Your task to perform on an android device: check battery use Image 0: 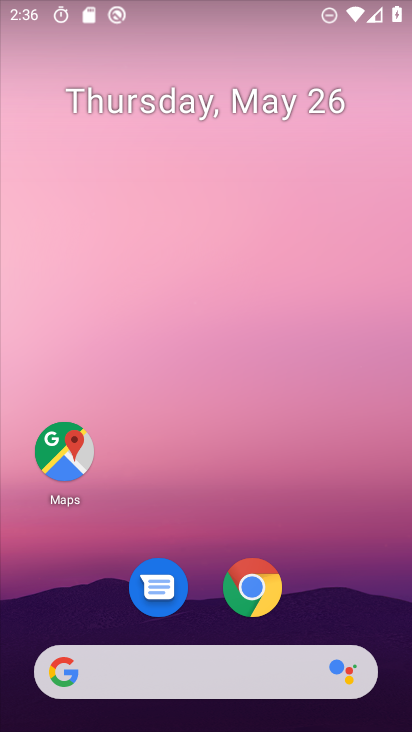
Step 0: drag from (334, 473) to (283, 147)
Your task to perform on an android device: check battery use Image 1: 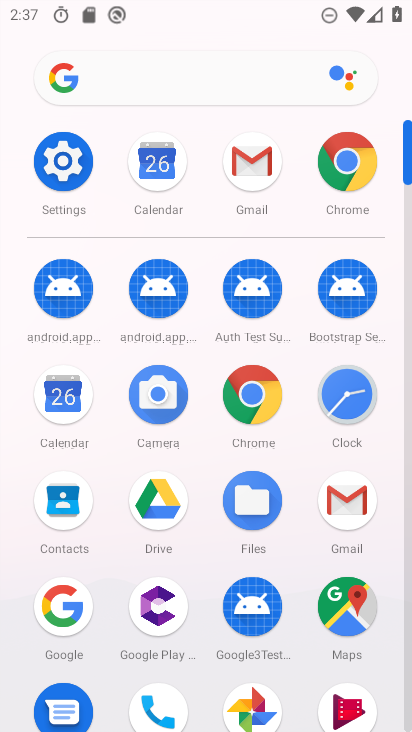
Step 1: click (52, 184)
Your task to perform on an android device: check battery use Image 2: 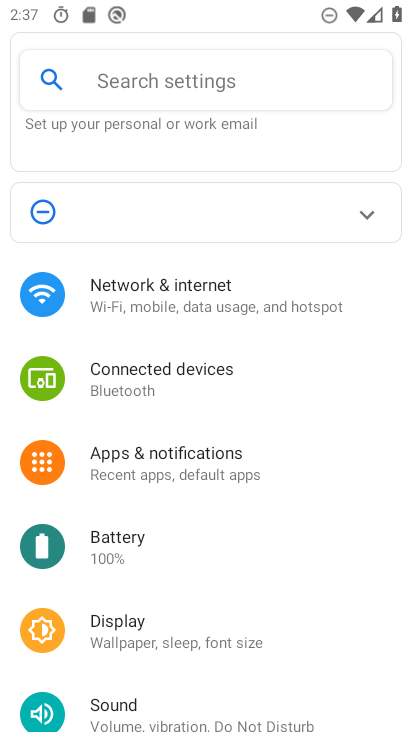
Step 2: drag from (247, 615) to (257, 414)
Your task to perform on an android device: check battery use Image 3: 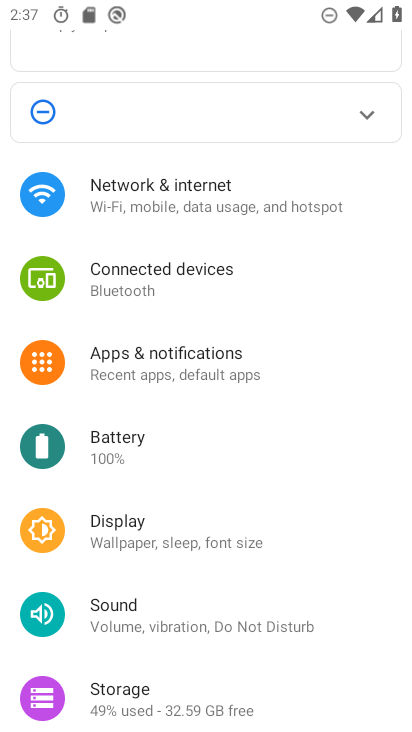
Step 3: click (126, 438)
Your task to perform on an android device: check battery use Image 4: 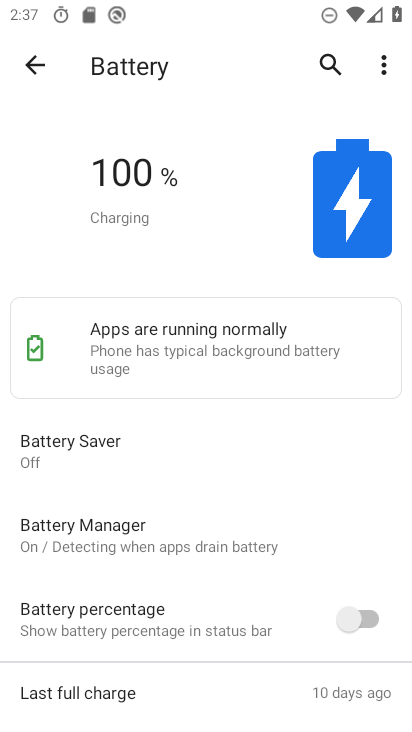
Step 4: click (379, 64)
Your task to perform on an android device: check battery use Image 5: 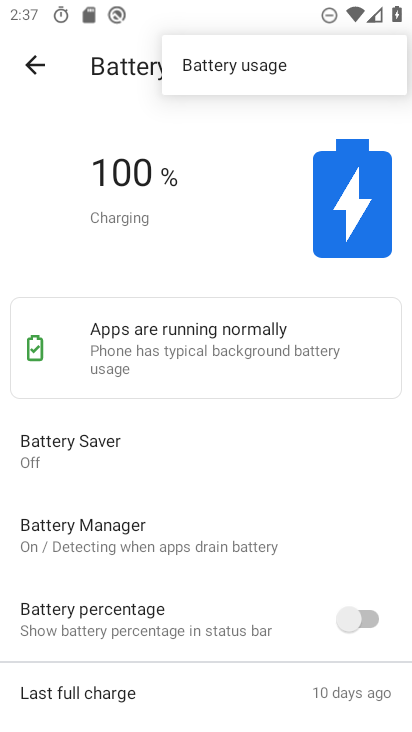
Step 5: click (277, 76)
Your task to perform on an android device: check battery use Image 6: 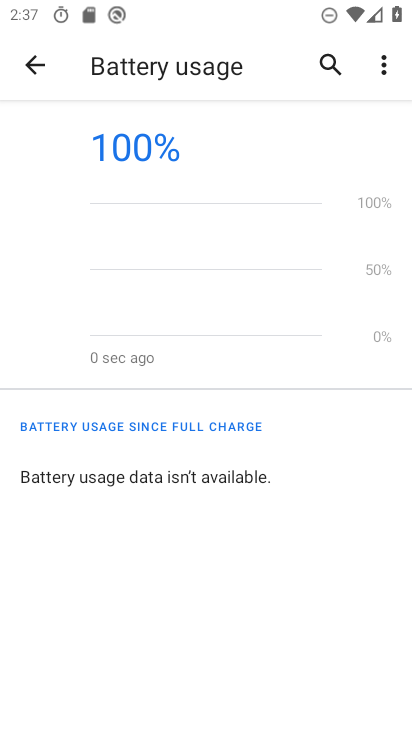
Step 6: task complete